Your task to perform on an android device: turn on bluetooth scan Image 0: 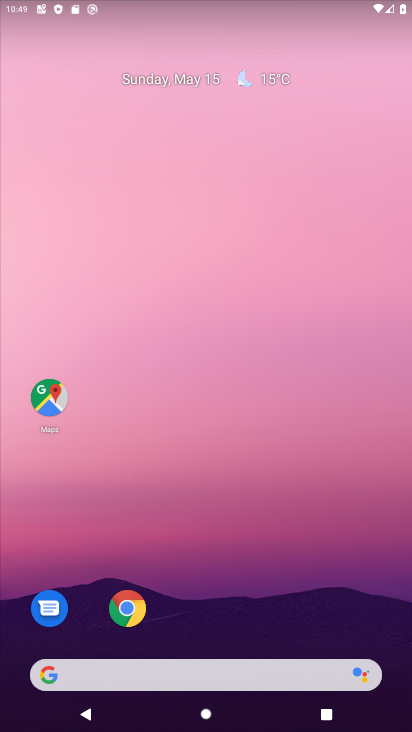
Step 0: click (109, 602)
Your task to perform on an android device: turn on bluetooth scan Image 1: 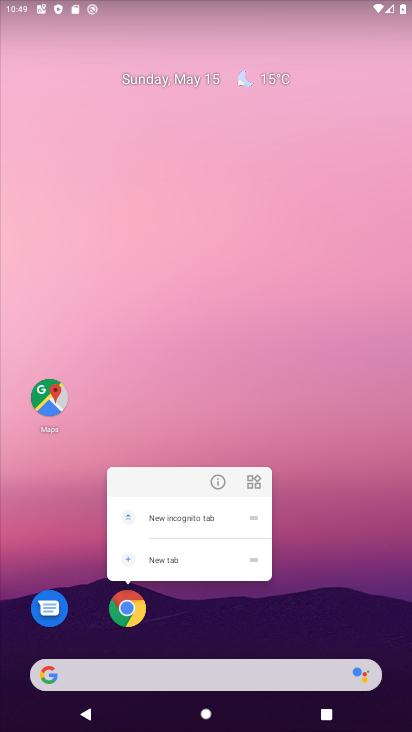
Step 1: drag from (303, 313) to (303, 112)
Your task to perform on an android device: turn on bluetooth scan Image 2: 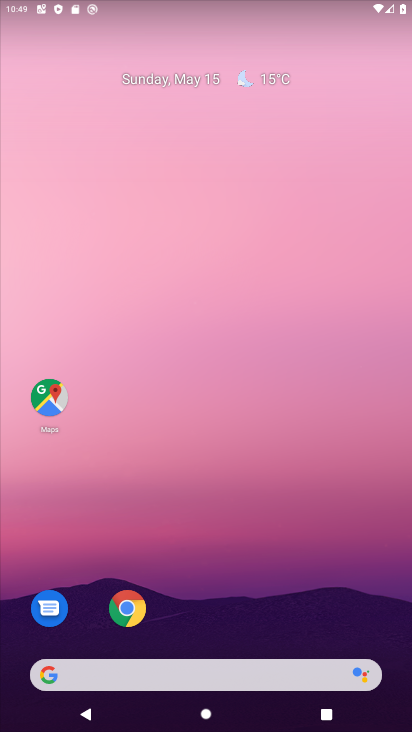
Step 2: drag from (223, 327) to (238, 5)
Your task to perform on an android device: turn on bluetooth scan Image 3: 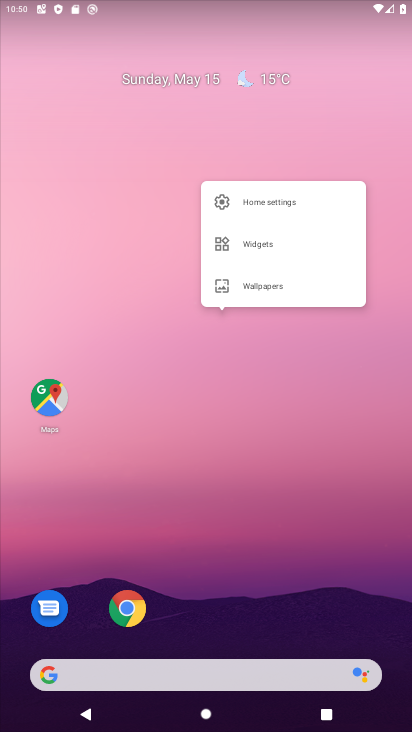
Step 3: click (223, 633)
Your task to perform on an android device: turn on bluetooth scan Image 4: 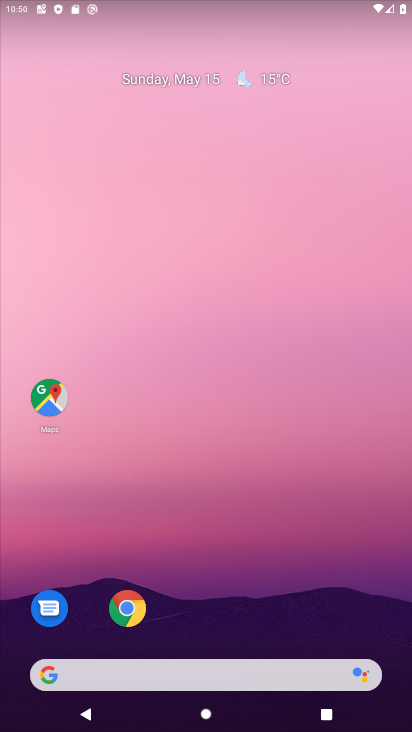
Step 4: drag from (214, 639) to (246, 137)
Your task to perform on an android device: turn on bluetooth scan Image 5: 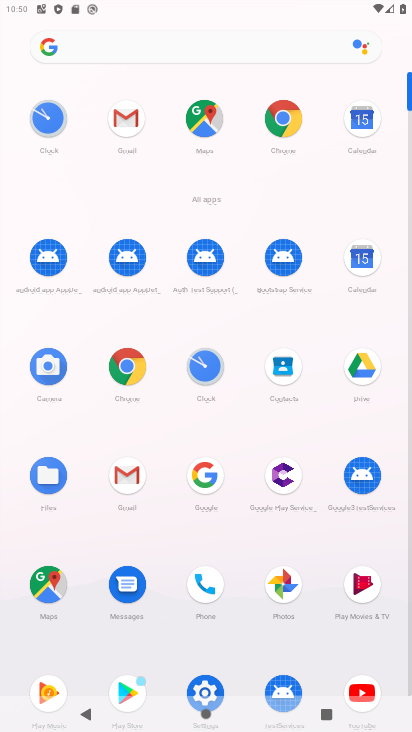
Step 5: click (208, 692)
Your task to perform on an android device: turn on bluetooth scan Image 6: 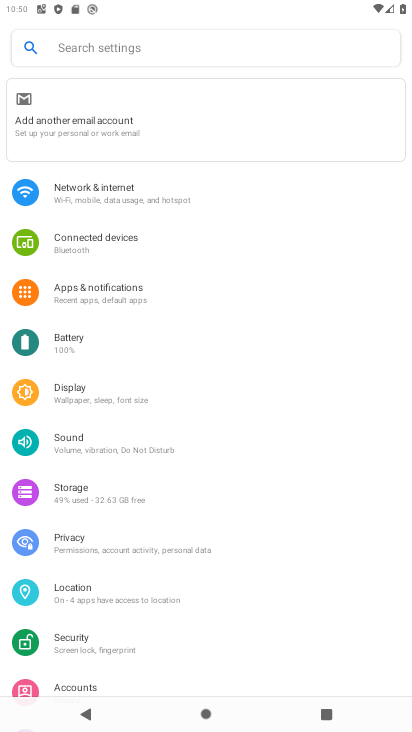
Step 6: click (85, 601)
Your task to perform on an android device: turn on bluetooth scan Image 7: 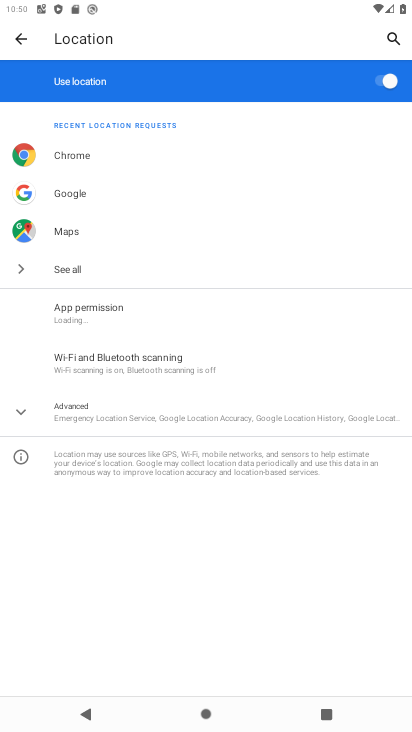
Step 7: click (87, 417)
Your task to perform on an android device: turn on bluetooth scan Image 8: 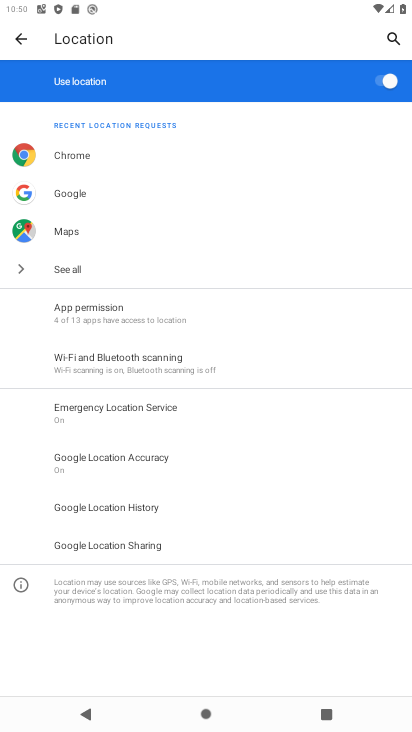
Step 8: click (172, 369)
Your task to perform on an android device: turn on bluetooth scan Image 9: 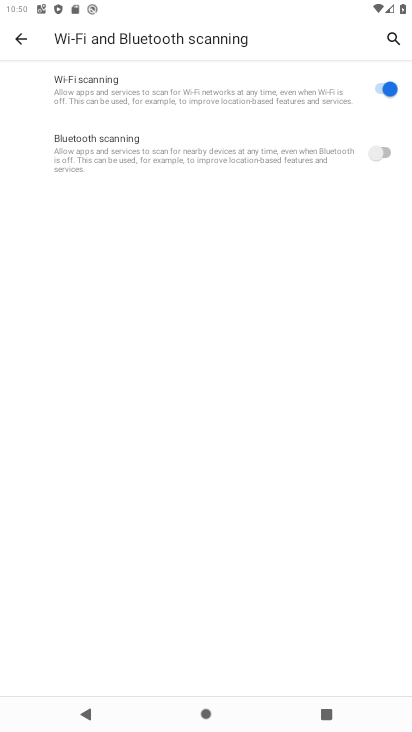
Step 9: click (393, 158)
Your task to perform on an android device: turn on bluetooth scan Image 10: 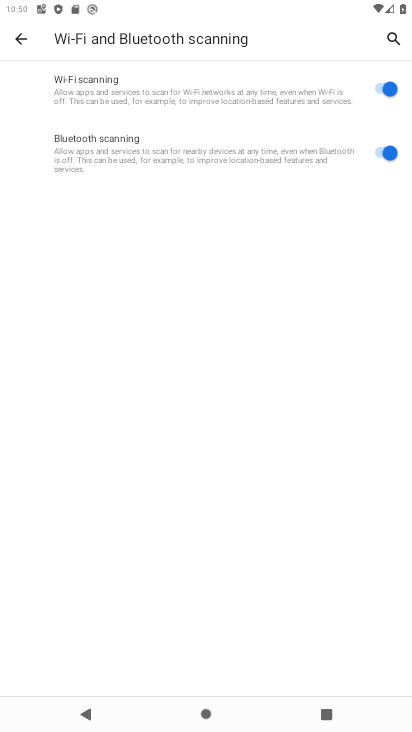
Step 10: task complete